Your task to perform on an android device: change alarm snooze length Image 0: 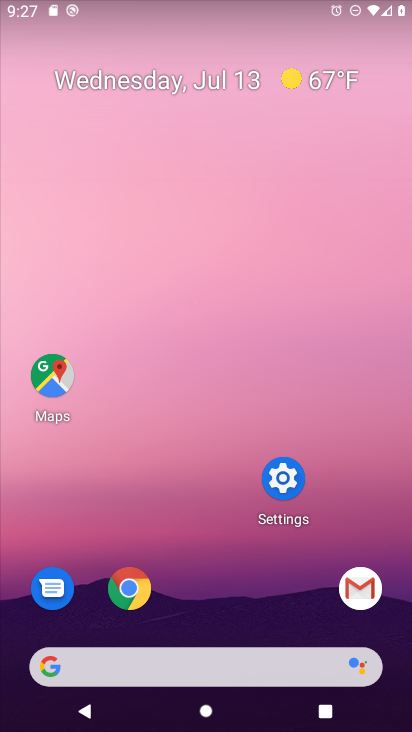
Step 0: press home button
Your task to perform on an android device: change alarm snooze length Image 1: 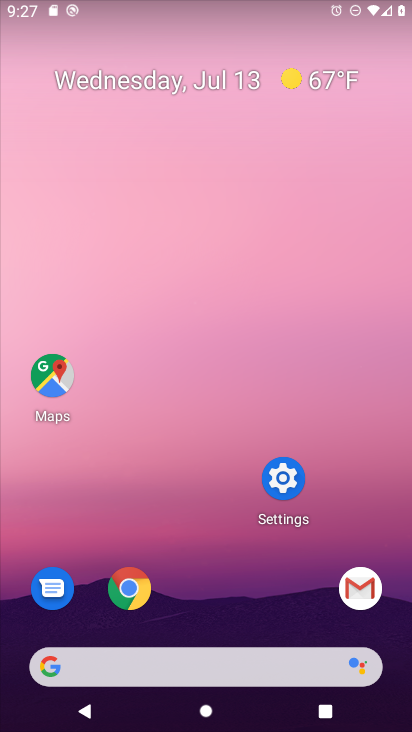
Step 1: drag from (242, 583) to (260, 191)
Your task to perform on an android device: change alarm snooze length Image 2: 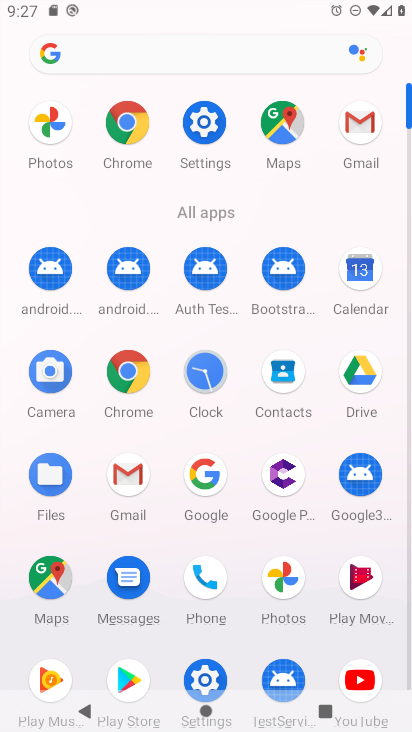
Step 2: click (205, 372)
Your task to perform on an android device: change alarm snooze length Image 3: 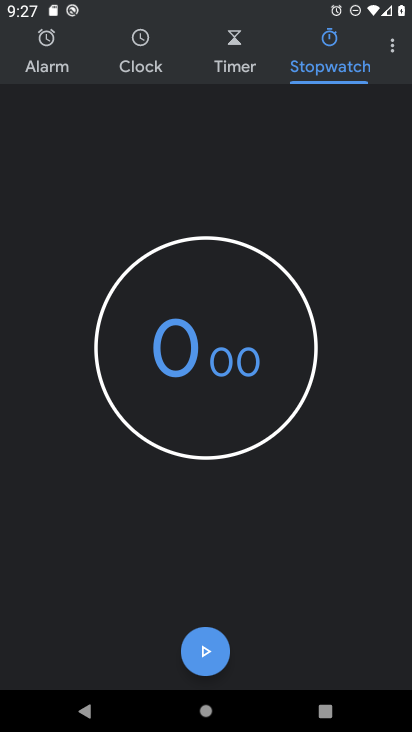
Step 3: click (384, 58)
Your task to perform on an android device: change alarm snooze length Image 4: 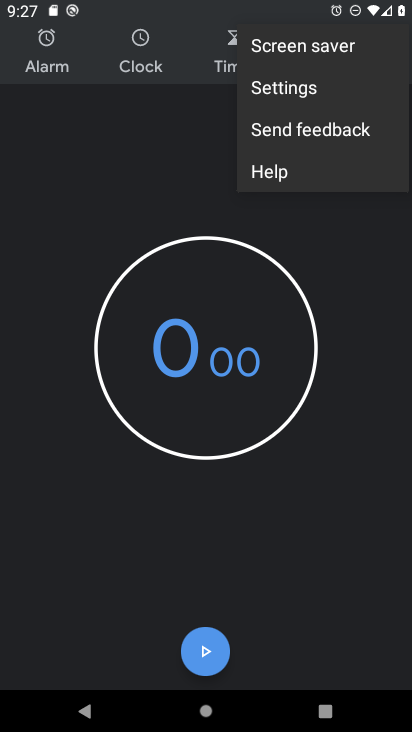
Step 4: click (299, 96)
Your task to perform on an android device: change alarm snooze length Image 5: 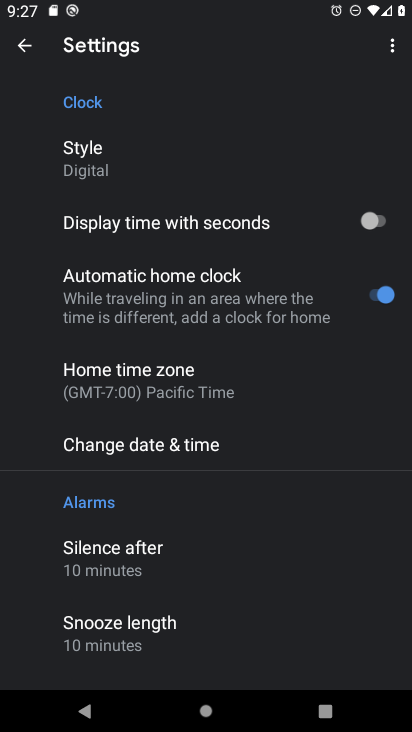
Step 5: click (164, 610)
Your task to perform on an android device: change alarm snooze length Image 6: 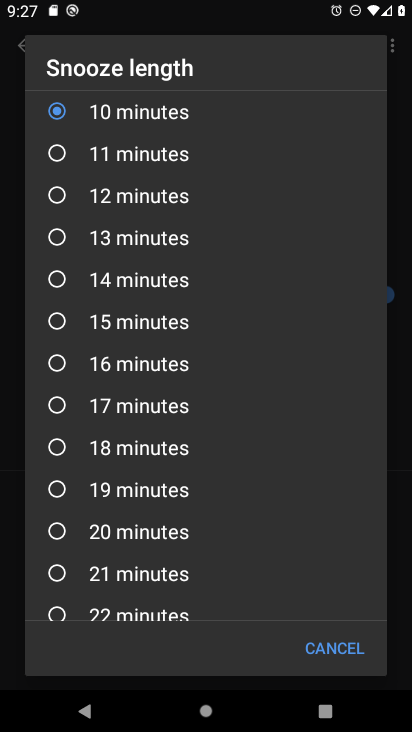
Step 6: click (88, 532)
Your task to perform on an android device: change alarm snooze length Image 7: 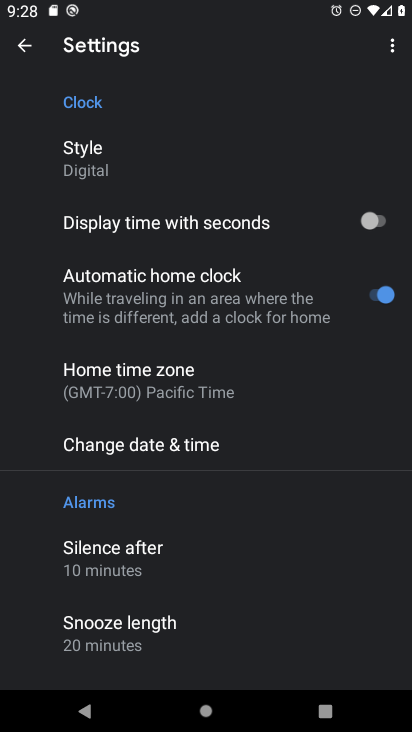
Step 7: task complete